Your task to perform on an android device: read, delete, or share a saved page in the chrome app Image 0: 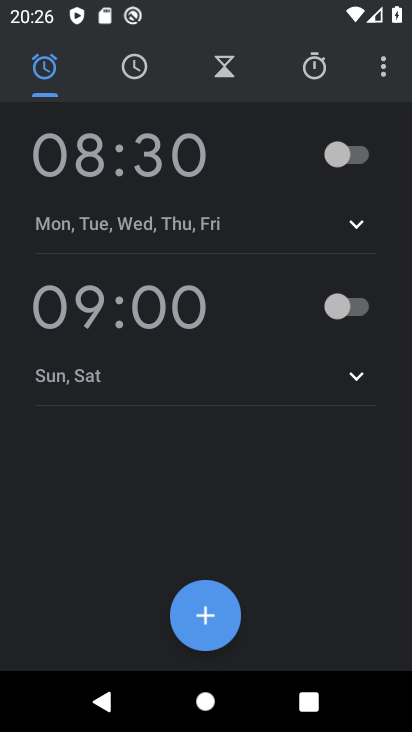
Step 0: press home button
Your task to perform on an android device: read, delete, or share a saved page in the chrome app Image 1: 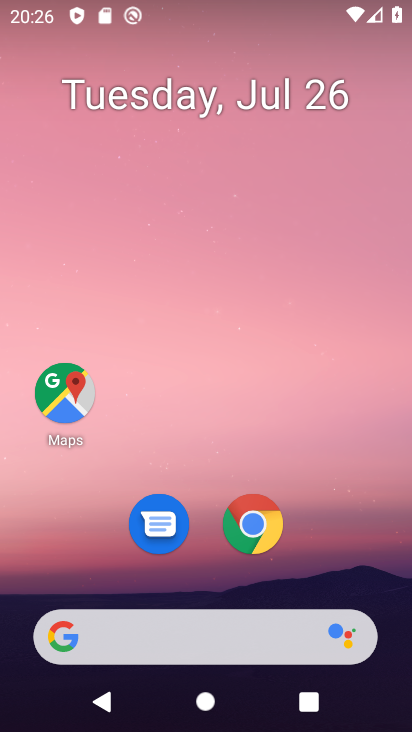
Step 1: click (256, 531)
Your task to perform on an android device: read, delete, or share a saved page in the chrome app Image 2: 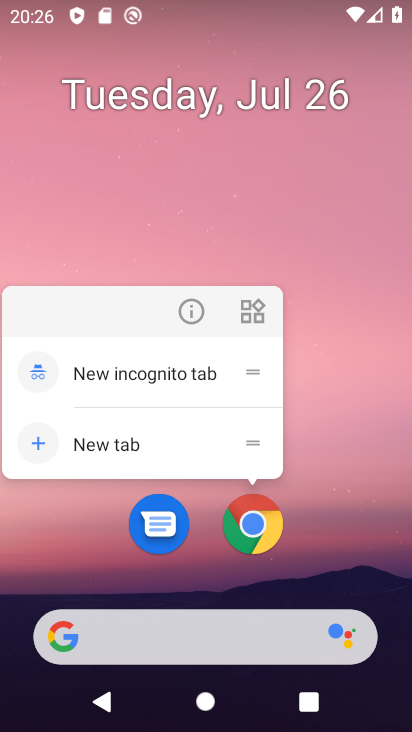
Step 2: click (267, 519)
Your task to perform on an android device: read, delete, or share a saved page in the chrome app Image 3: 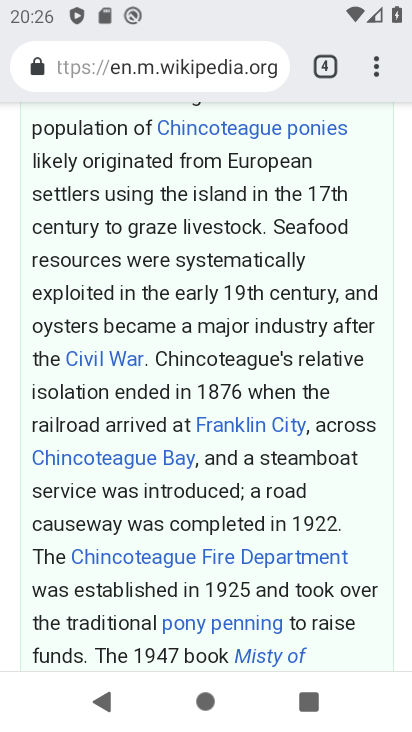
Step 3: drag from (373, 70) to (228, 430)
Your task to perform on an android device: read, delete, or share a saved page in the chrome app Image 4: 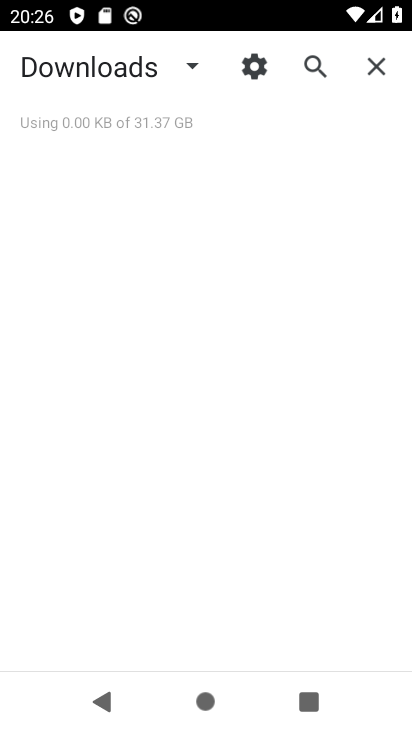
Step 4: click (188, 67)
Your task to perform on an android device: read, delete, or share a saved page in the chrome app Image 5: 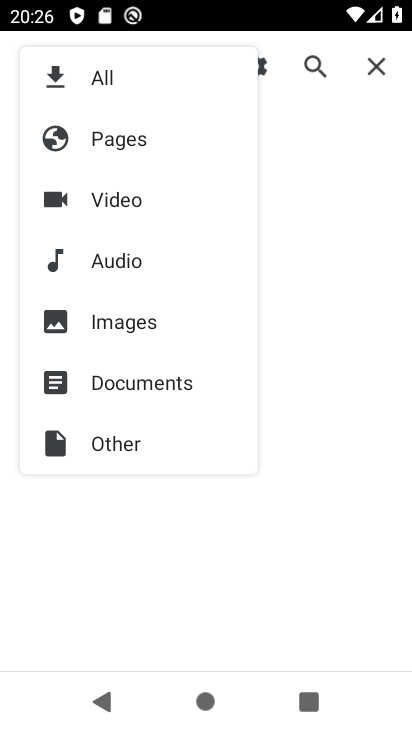
Step 5: click (131, 143)
Your task to perform on an android device: read, delete, or share a saved page in the chrome app Image 6: 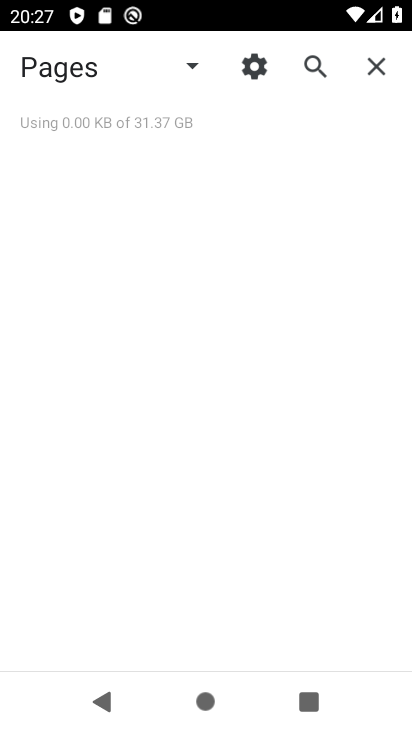
Step 6: task complete